Your task to perform on an android device: Go to settings Image 0: 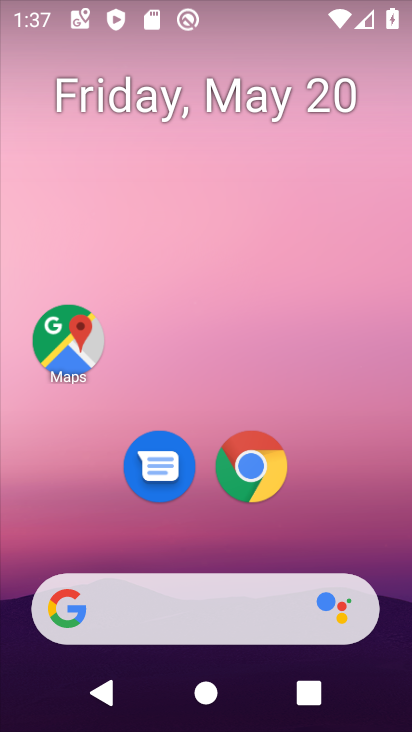
Step 0: drag from (217, 548) to (180, 95)
Your task to perform on an android device: Go to settings Image 1: 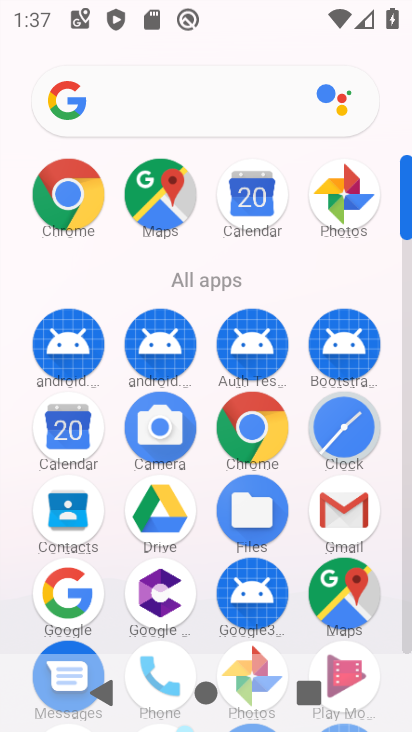
Step 1: drag from (203, 638) to (203, 293)
Your task to perform on an android device: Go to settings Image 2: 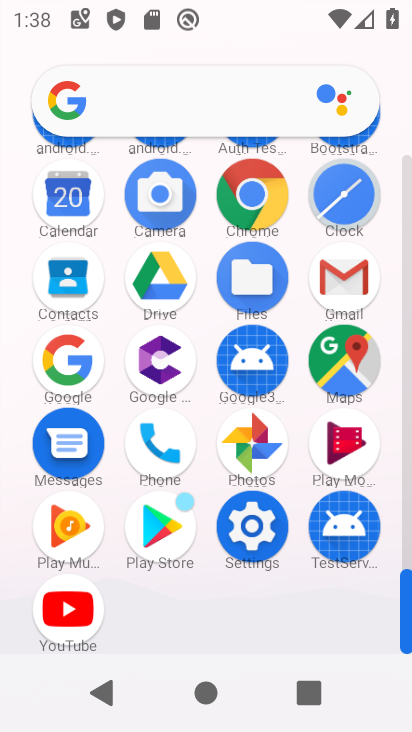
Step 2: click (262, 521)
Your task to perform on an android device: Go to settings Image 3: 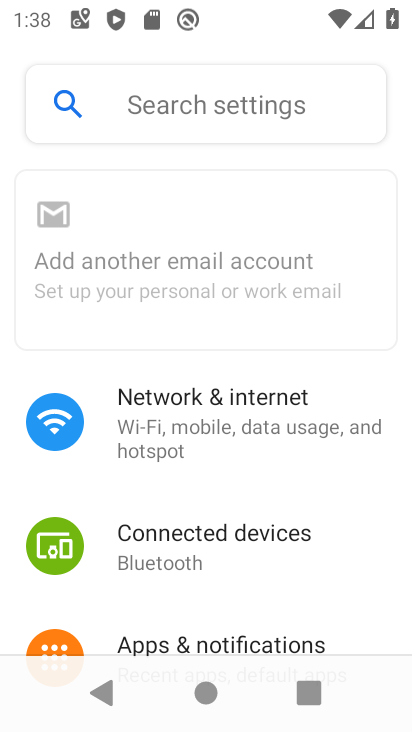
Step 3: task complete